Your task to perform on an android device: change your default location settings in chrome Image 0: 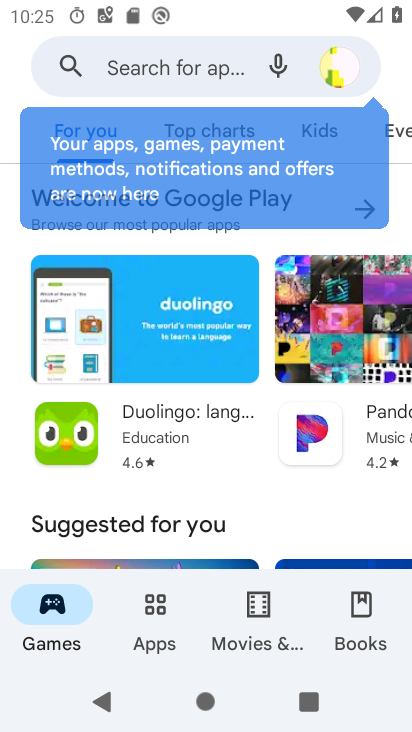
Step 0: drag from (293, 462) to (328, 51)
Your task to perform on an android device: change your default location settings in chrome Image 1: 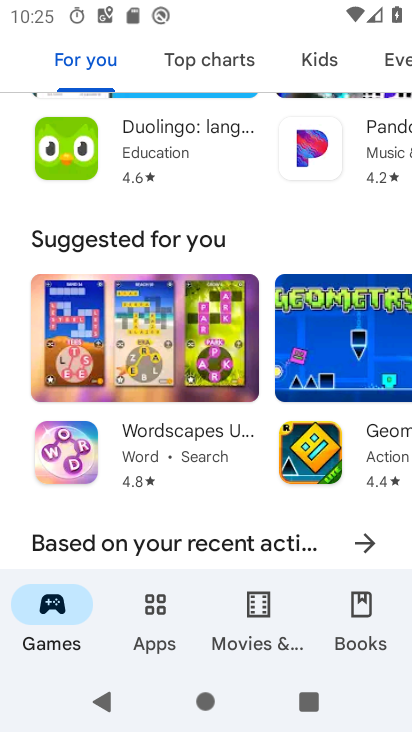
Step 1: press home button
Your task to perform on an android device: change your default location settings in chrome Image 2: 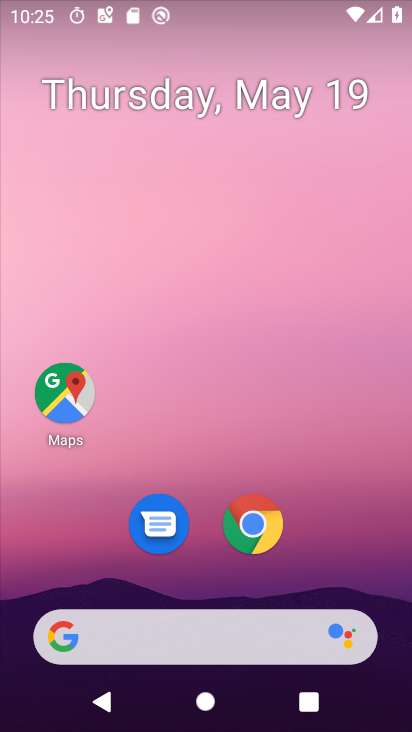
Step 2: drag from (334, 505) to (349, 93)
Your task to perform on an android device: change your default location settings in chrome Image 3: 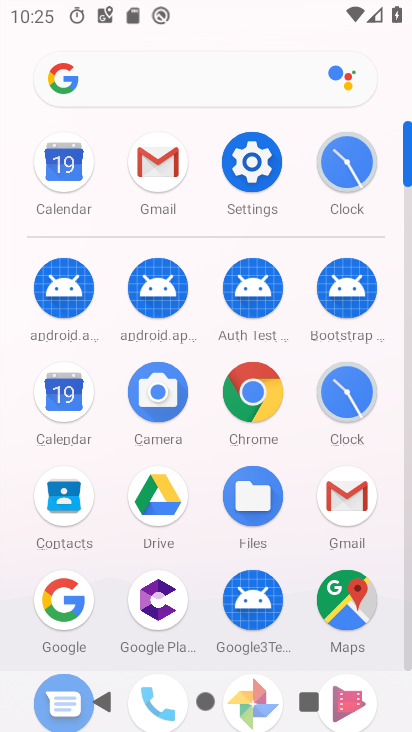
Step 3: click (255, 401)
Your task to perform on an android device: change your default location settings in chrome Image 4: 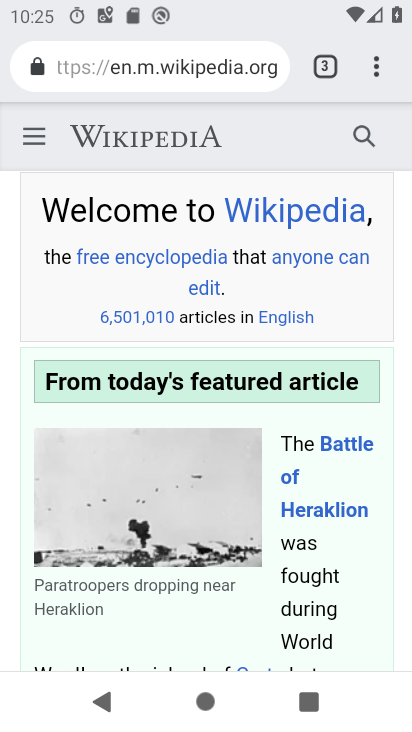
Step 4: click (374, 70)
Your task to perform on an android device: change your default location settings in chrome Image 5: 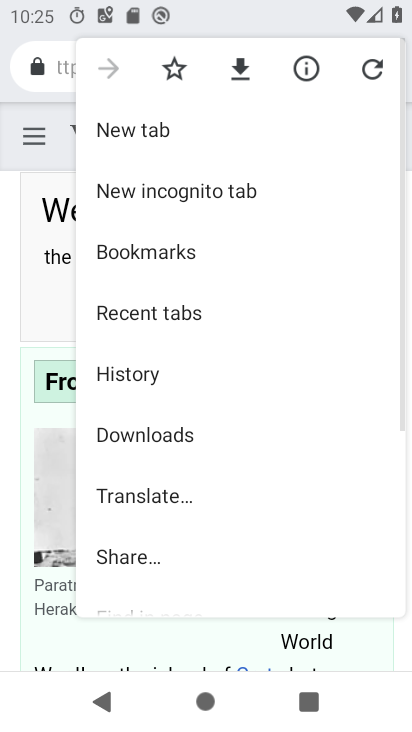
Step 5: drag from (283, 379) to (292, 179)
Your task to perform on an android device: change your default location settings in chrome Image 6: 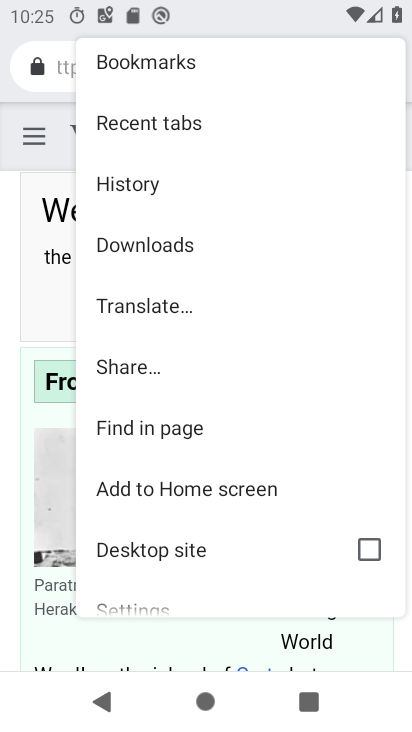
Step 6: drag from (243, 372) to (252, 154)
Your task to perform on an android device: change your default location settings in chrome Image 7: 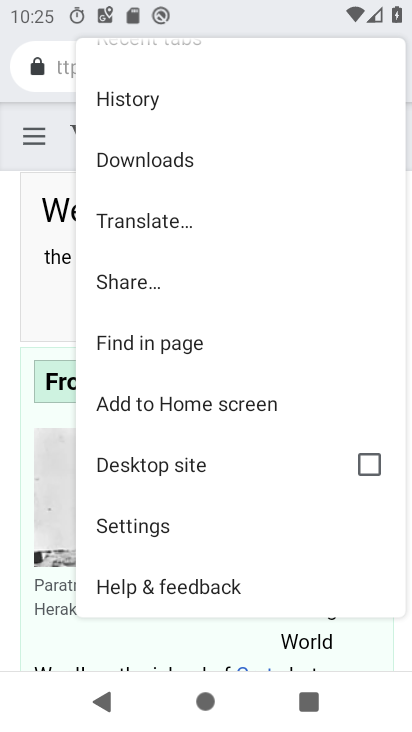
Step 7: click (160, 522)
Your task to perform on an android device: change your default location settings in chrome Image 8: 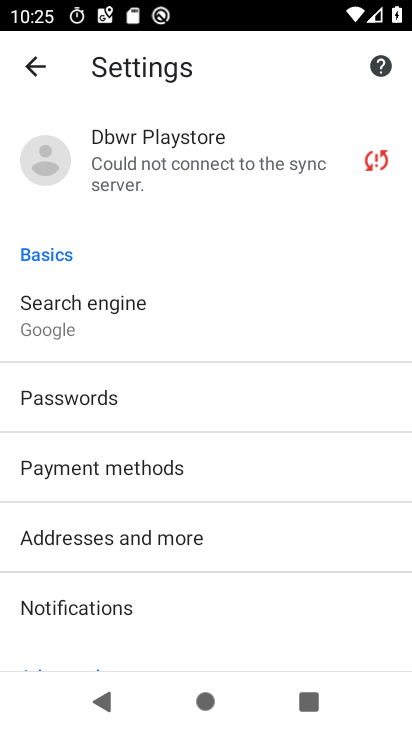
Step 8: drag from (274, 408) to (288, 176)
Your task to perform on an android device: change your default location settings in chrome Image 9: 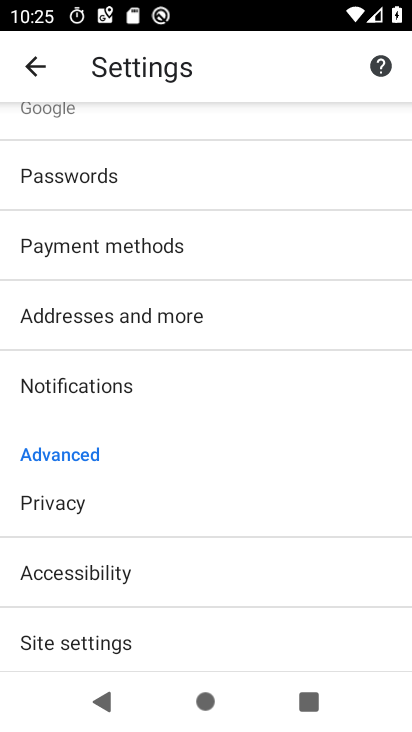
Step 9: click (151, 638)
Your task to perform on an android device: change your default location settings in chrome Image 10: 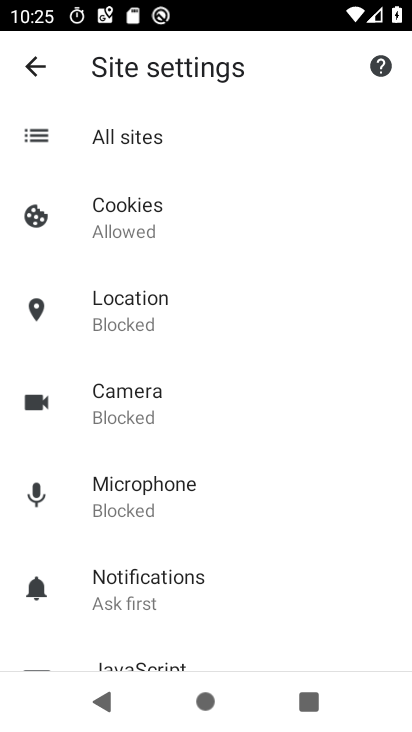
Step 10: click (212, 307)
Your task to perform on an android device: change your default location settings in chrome Image 11: 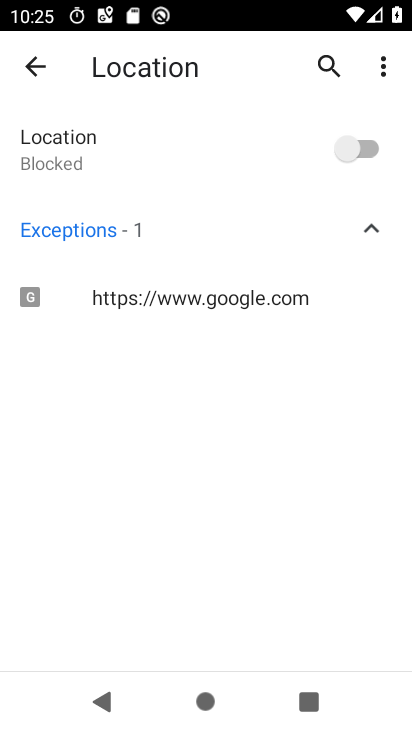
Step 11: click (358, 152)
Your task to perform on an android device: change your default location settings in chrome Image 12: 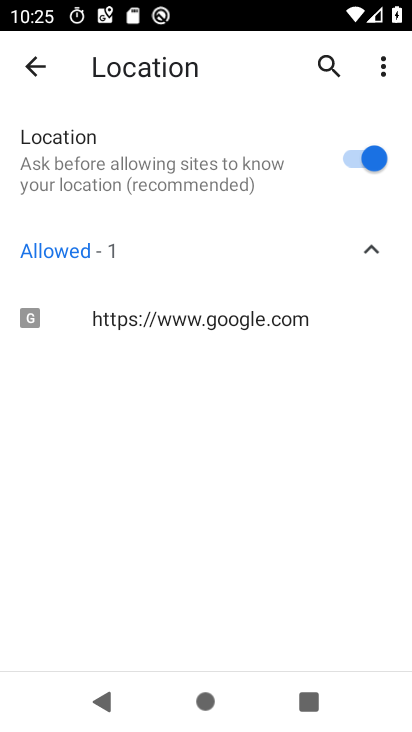
Step 12: task complete